Your task to perform on an android device: turn off airplane mode Image 0: 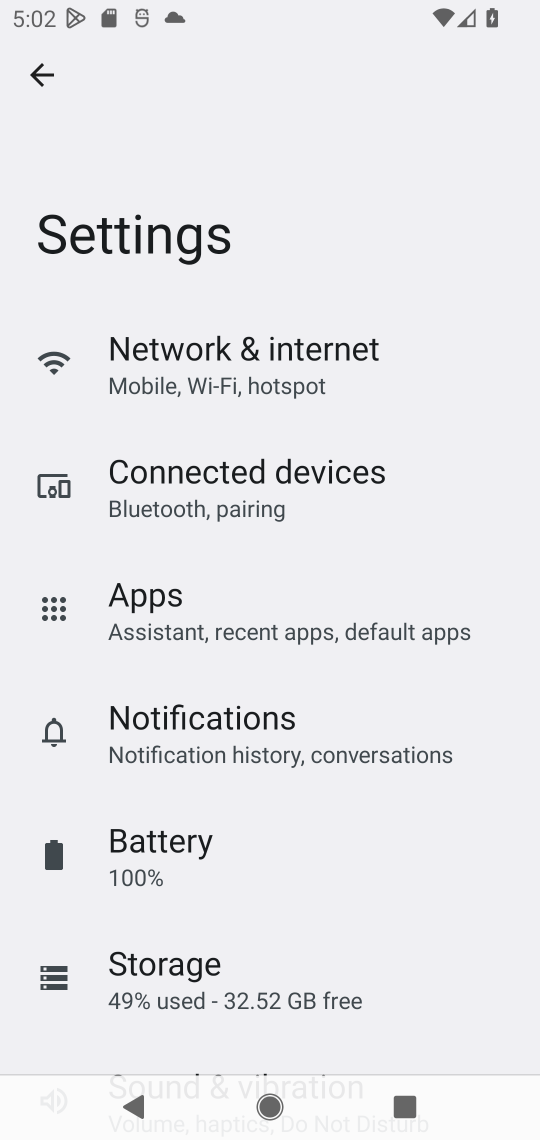
Step 0: drag from (204, 2) to (230, 233)
Your task to perform on an android device: turn off airplane mode Image 1: 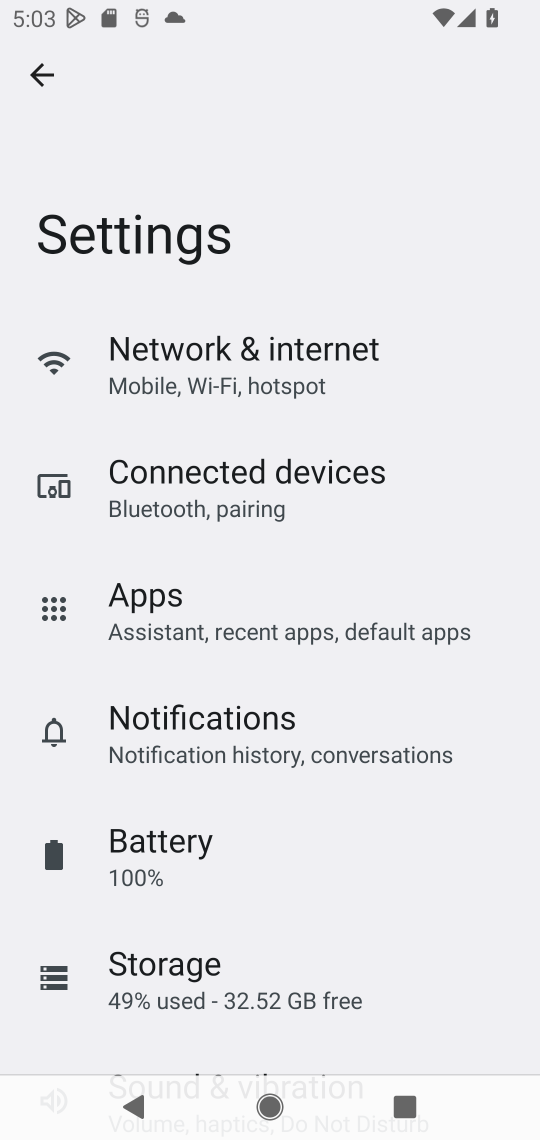
Step 1: task complete